Your task to perform on an android device: Open calendar and show me the second week of next month Image 0: 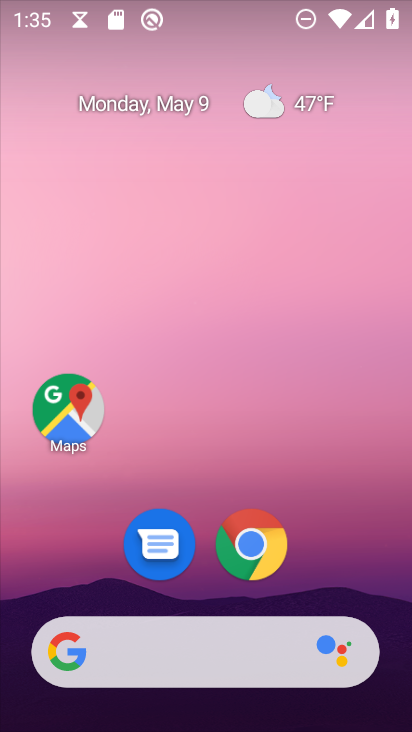
Step 0: drag from (367, 514) to (327, 121)
Your task to perform on an android device: Open calendar and show me the second week of next month Image 1: 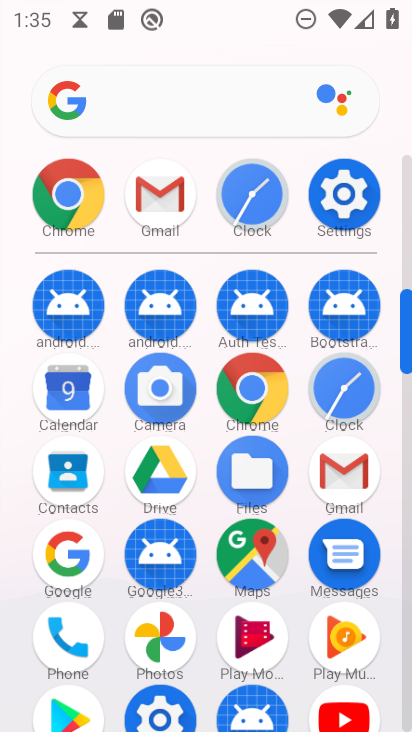
Step 1: click (59, 389)
Your task to perform on an android device: Open calendar and show me the second week of next month Image 2: 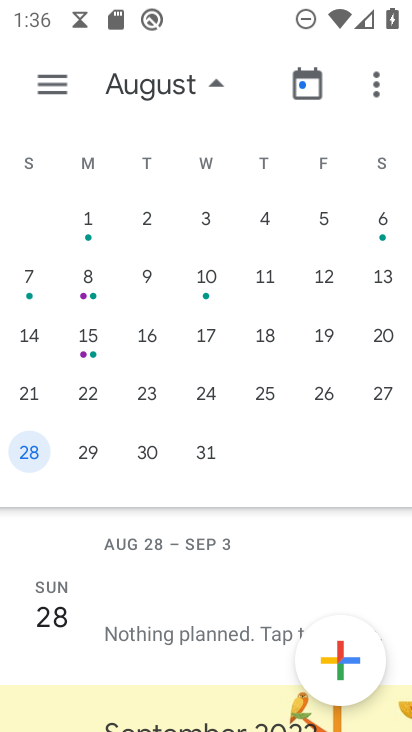
Step 2: drag from (337, 341) to (12, 255)
Your task to perform on an android device: Open calendar and show me the second week of next month Image 3: 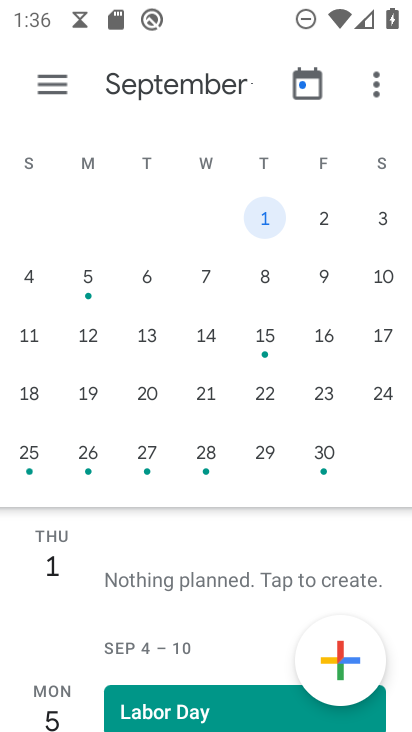
Step 3: click (198, 347)
Your task to perform on an android device: Open calendar and show me the second week of next month Image 4: 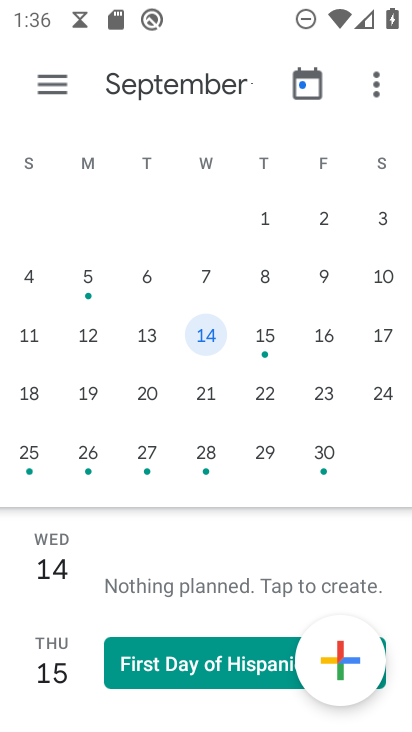
Step 4: task complete